Your task to perform on an android device: Open ESPN.com Image 0: 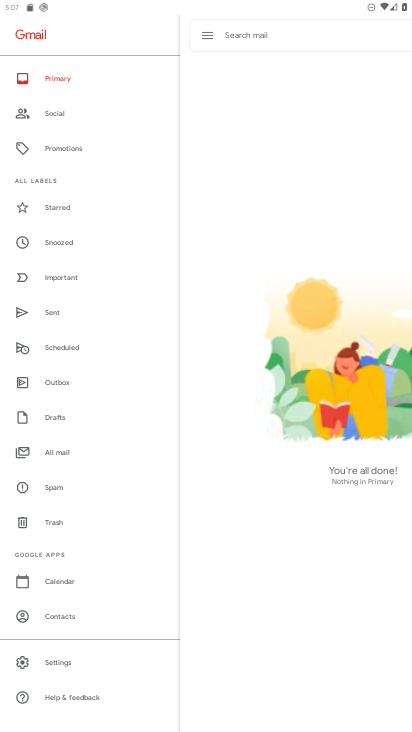
Step 0: press home button
Your task to perform on an android device: Open ESPN.com Image 1: 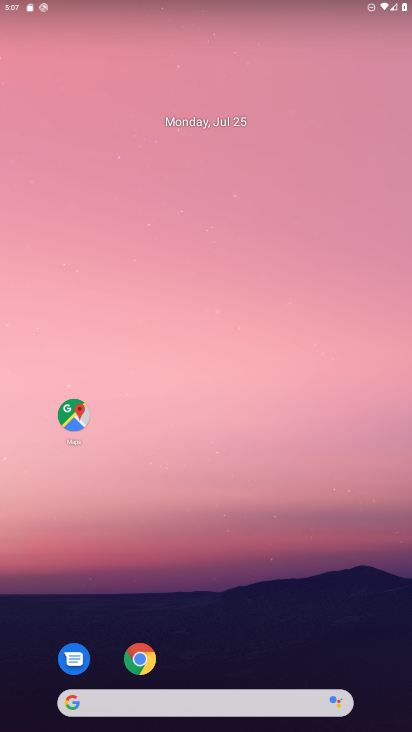
Step 1: click (149, 651)
Your task to perform on an android device: Open ESPN.com Image 2: 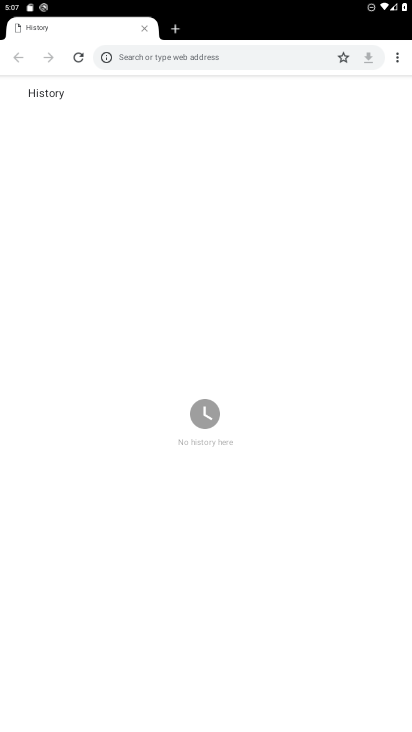
Step 2: click (173, 28)
Your task to perform on an android device: Open ESPN.com Image 3: 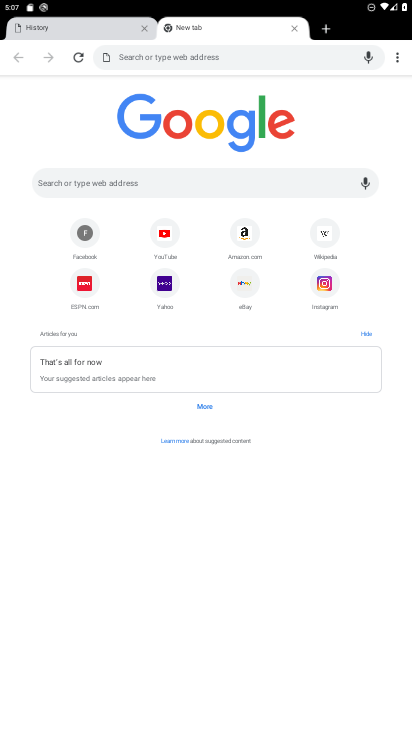
Step 3: click (83, 295)
Your task to perform on an android device: Open ESPN.com Image 4: 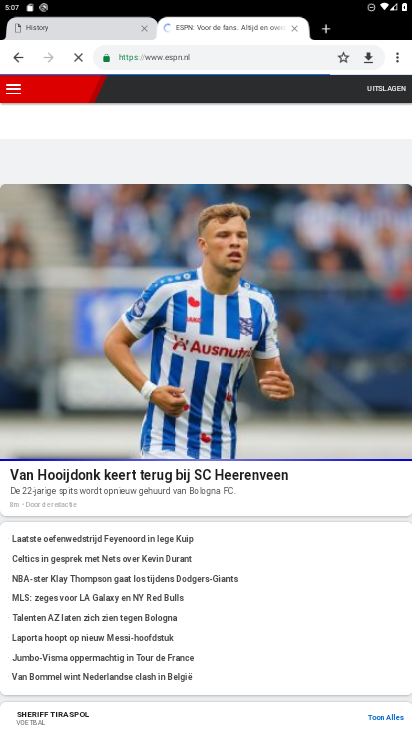
Step 4: task complete